Your task to perform on an android device: Search for seafood restaurants on Google Maps Image 0: 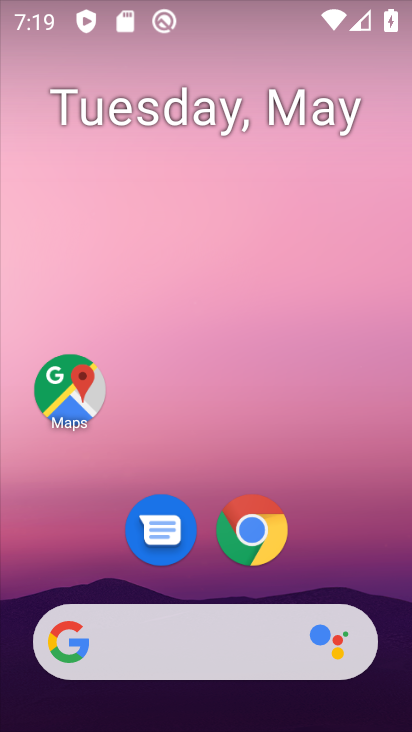
Step 0: click (80, 441)
Your task to perform on an android device: Search for seafood restaurants on Google Maps Image 1: 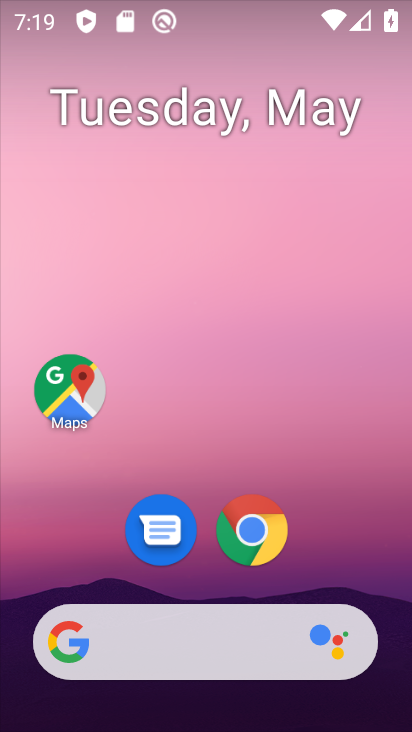
Step 1: click (74, 399)
Your task to perform on an android device: Search for seafood restaurants on Google Maps Image 2: 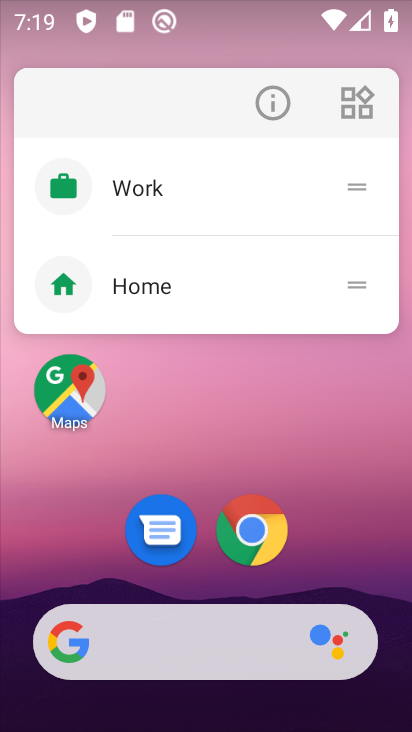
Step 2: click (64, 409)
Your task to perform on an android device: Search for seafood restaurants on Google Maps Image 3: 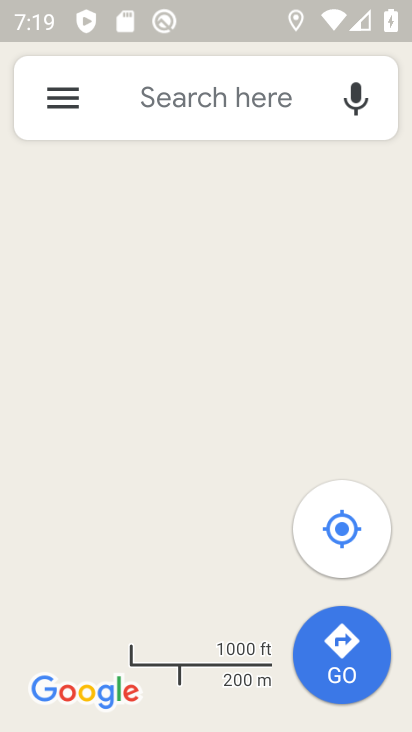
Step 3: click (238, 103)
Your task to perform on an android device: Search for seafood restaurants on Google Maps Image 4: 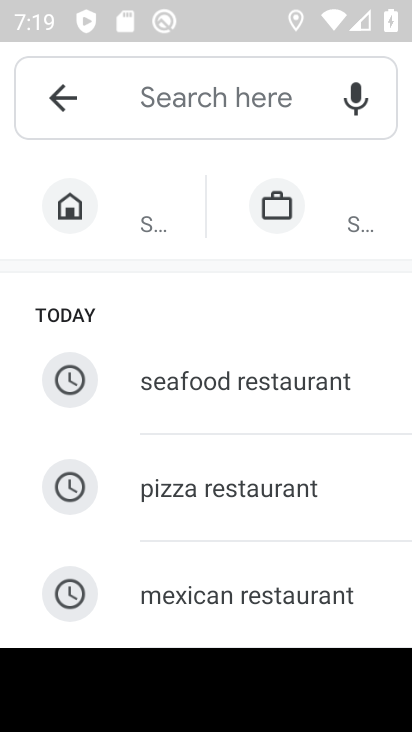
Step 4: type "seafood"
Your task to perform on an android device: Search for seafood restaurants on Google Maps Image 5: 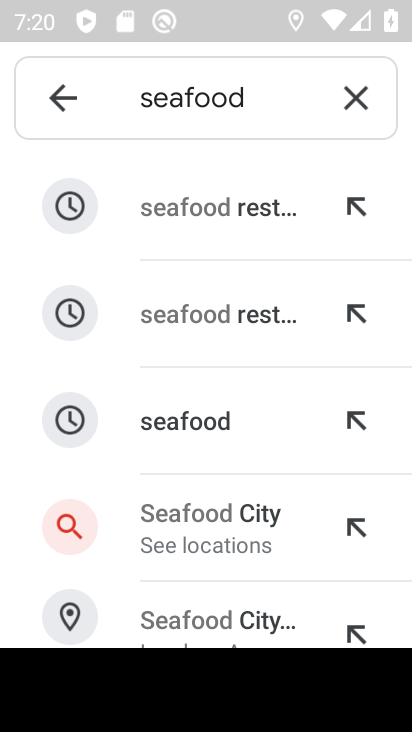
Step 5: click (266, 235)
Your task to perform on an android device: Search for seafood restaurants on Google Maps Image 6: 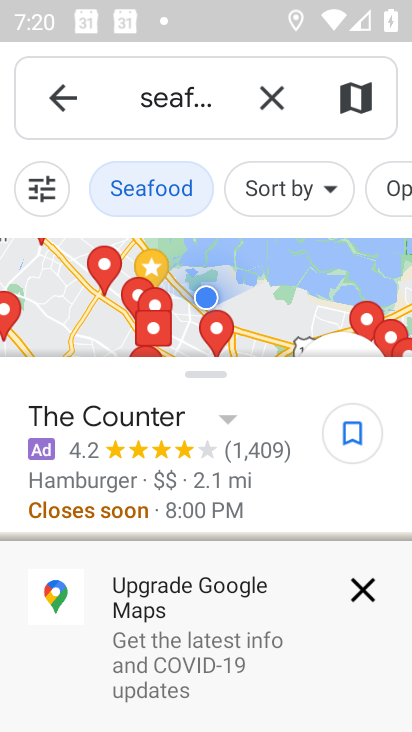
Step 6: task complete